Your task to perform on an android device: Show me popular videos on Youtube Image 0: 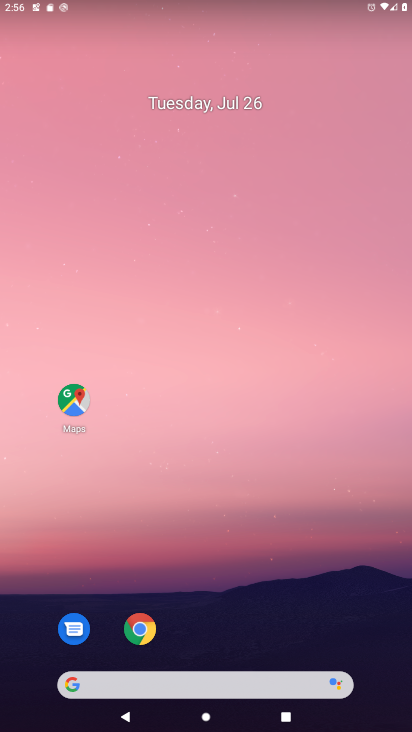
Step 0: drag from (246, 618) to (245, 220)
Your task to perform on an android device: Show me popular videos on Youtube Image 1: 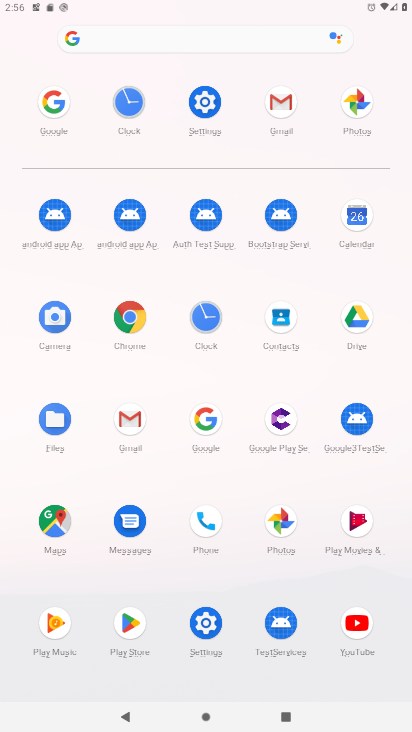
Step 1: click (353, 618)
Your task to perform on an android device: Show me popular videos on Youtube Image 2: 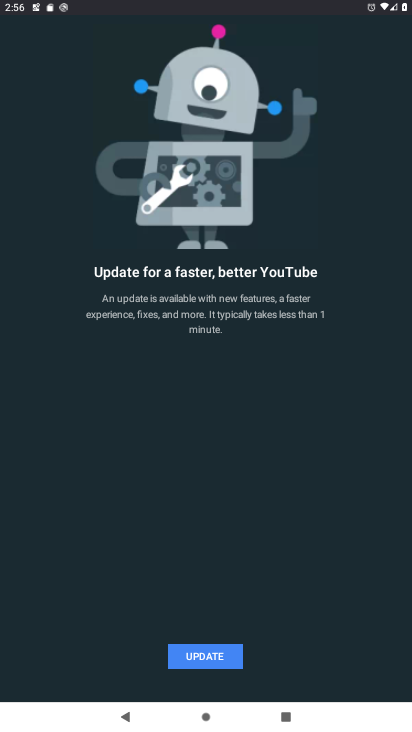
Step 2: click (175, 656)
Your task to perform on an android device: Show me popular videos on Youtube Image 3: 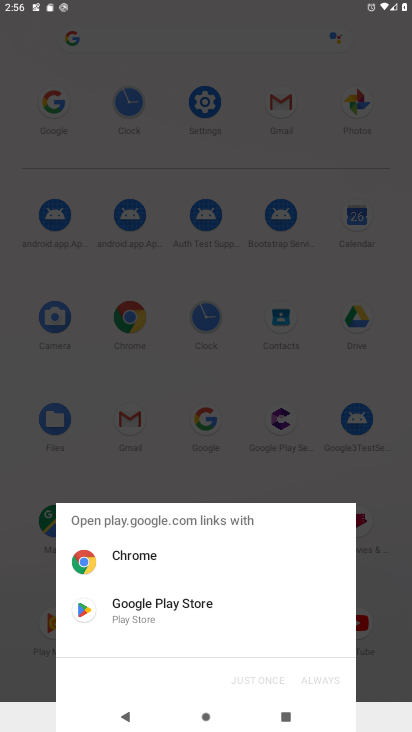
Step 3: click (110, 627)
Your task to perform on an android device: Show me popular videos on Youtube Image 4: 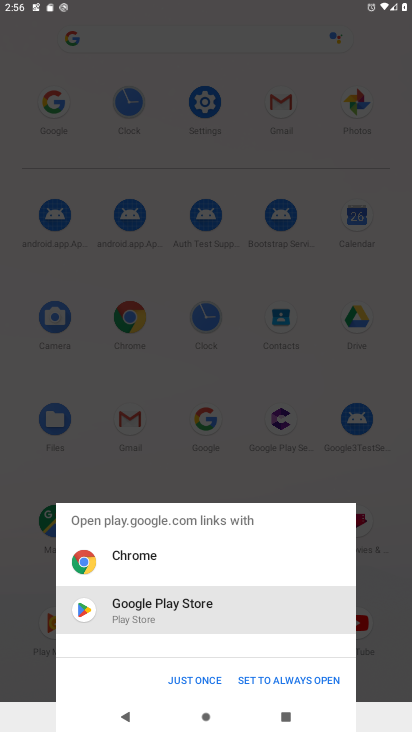
Step 4: click (200, 682)
Your task to perform on an android device: Show me popular videos on Youtube Image 5: 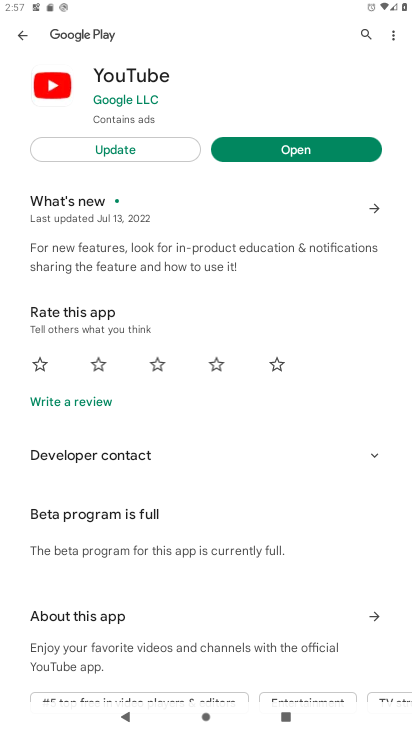
Step 5: click (110, 157)
Your task to perform on an android device: Show me popular videos on Youtube Image 6: 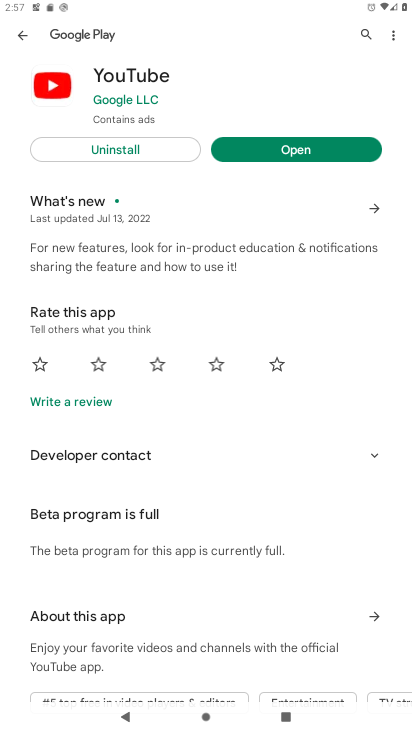
Step 6: click (290, 165)
Your task to perform on an android device: Show me popular videos on Youtube Image 7: 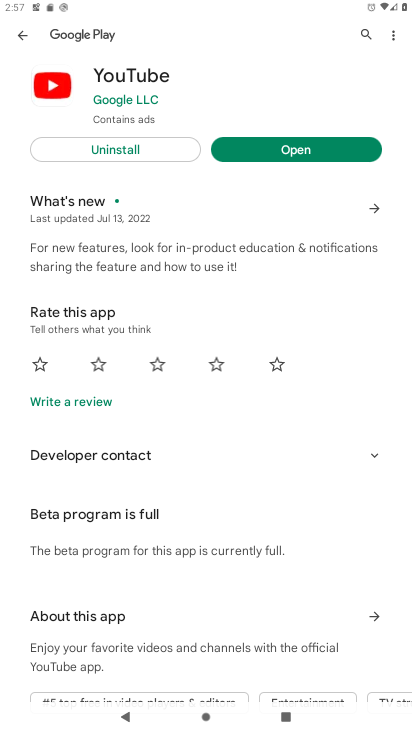
Step 7: click (283, 159)
Your task to perform on an android device: Show me popular videos on Youtube Image 8: 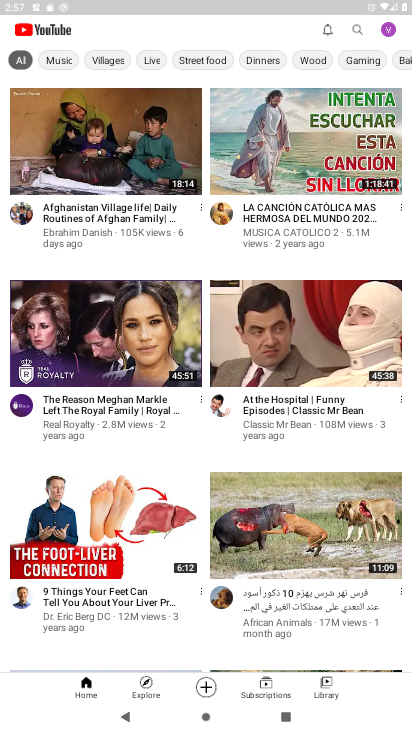
Step 8: click (348, 28)
Your task to perform on an android device: Show me popular videos on Youtube Image 9: 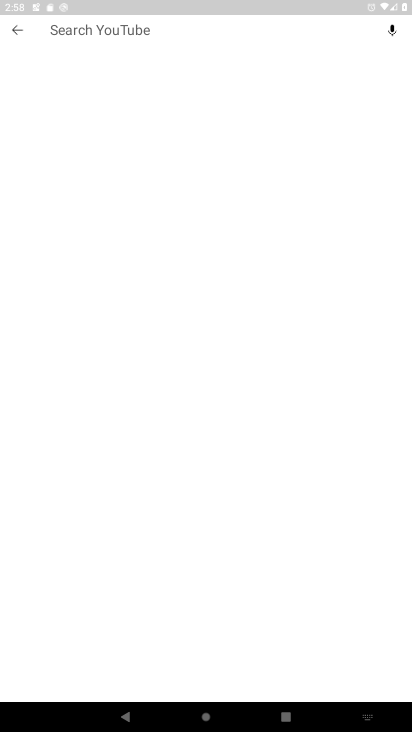
Step 9: type "popular videos"
Your task to perform on an android device: Show me popular videos on Youtube Image 10: 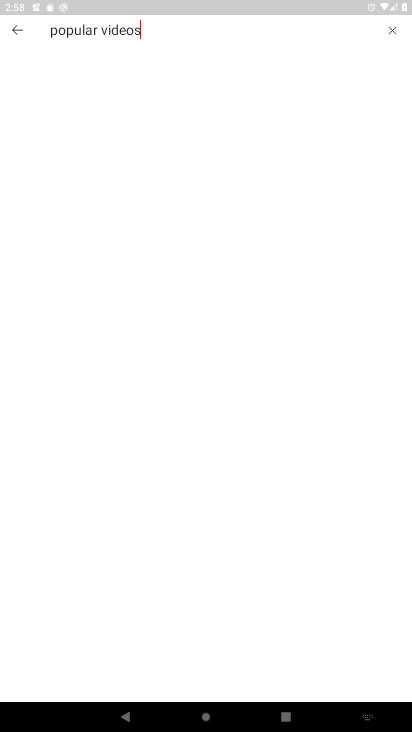
Step 10: type ""
Your task to perform on an android device: Show me popular videos on Youtube Image 11: 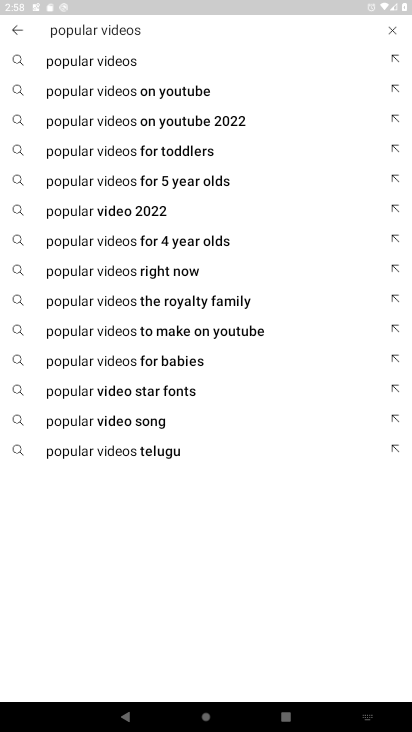
Step 11: click (152, 55)
Your task to perform on an android device: Show me popular videos on Youtube Image 12: 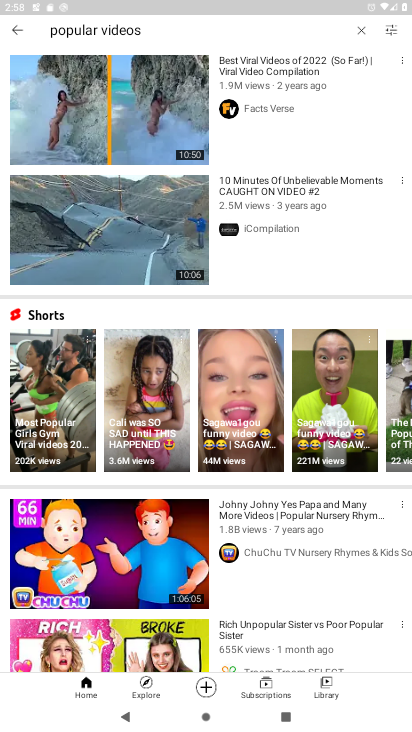
Step 12: task complete